Your task to perform on an android device: turn on showing notifications on the lock screen Image 0: 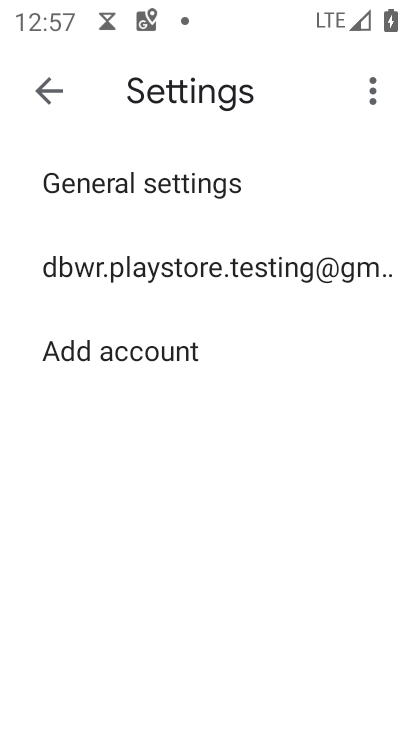
Step 0: press home button
Your task to perform on an android device: turn on showing notifications on the lock screen Image 1: 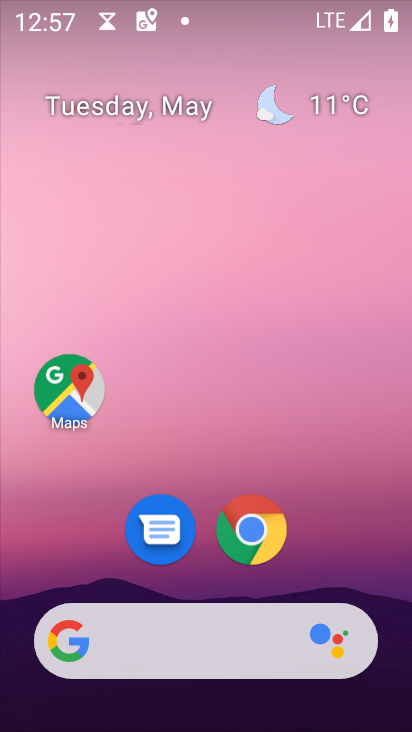
Step 1: drag from (228, 704) to (157, 140)
Your task to perform on an android device: turn on showing notifications on the lock screen Image 2: 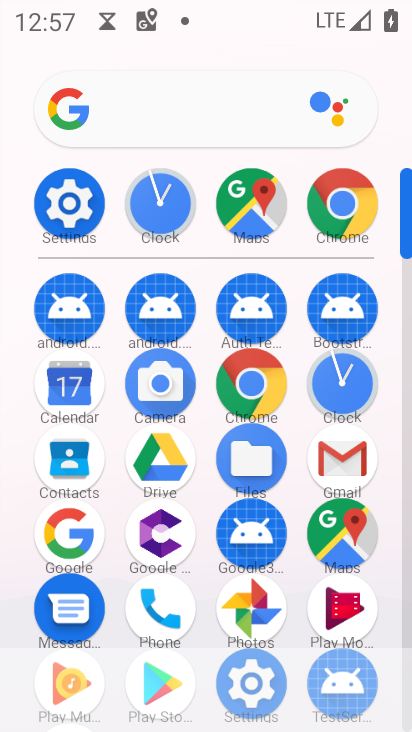
Step 2: click (65, 195)
Your task to perform on an android device: turn on showing notifications on the lock screen Image 3: 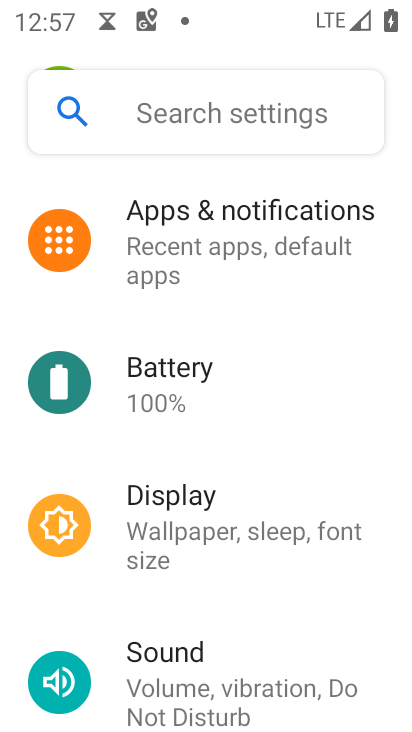
Step 3: click (235, 232)
Your task to perform on an android device: turn on showing notifications on the lock screen Image 4: 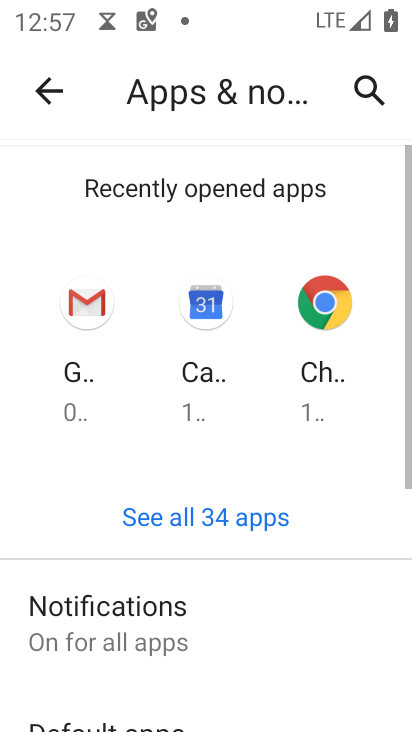
Step 4: drag from (184, 646) to (189, 272)
Your task to perform on an android device: turn on showing notifications on the lock screen Image 5: 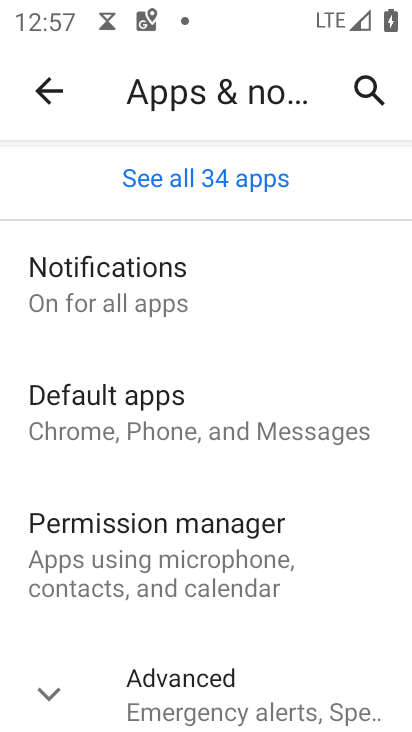
Step 5: click (83, 288)
Your task to perform on an android device: turn on showing notifications on the lock screen Image 6: 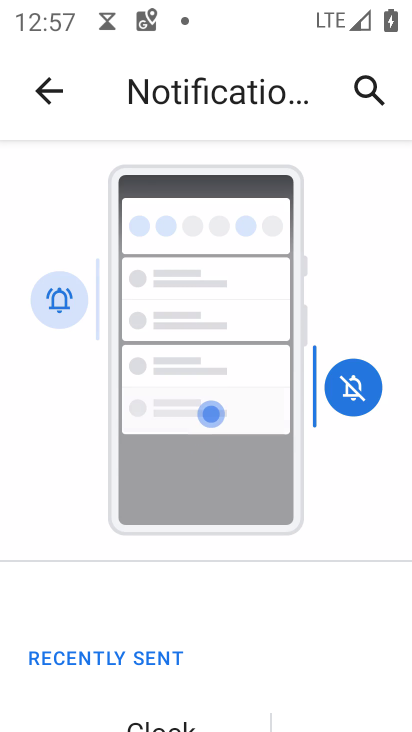
Step 6: drag from (212, 706) to (214, 299)
Your task to perform on an android device: turn on showing notifications on the lock screen Image 7: 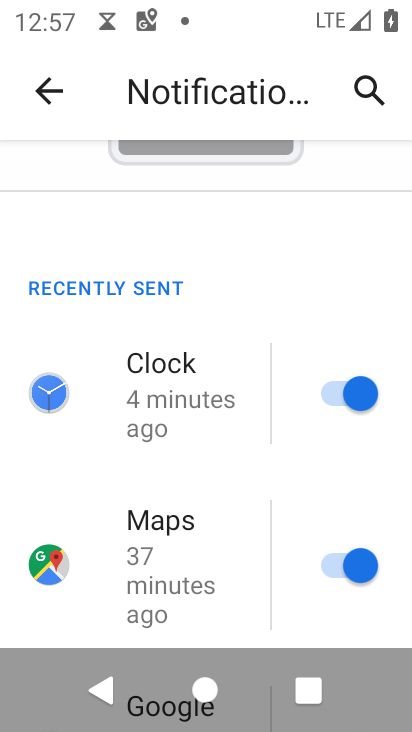
Step 7: drag from (202, 591) to (202, 211)
Your task to perform on an android device: turn on showing notifications on the lock screen Image 8: 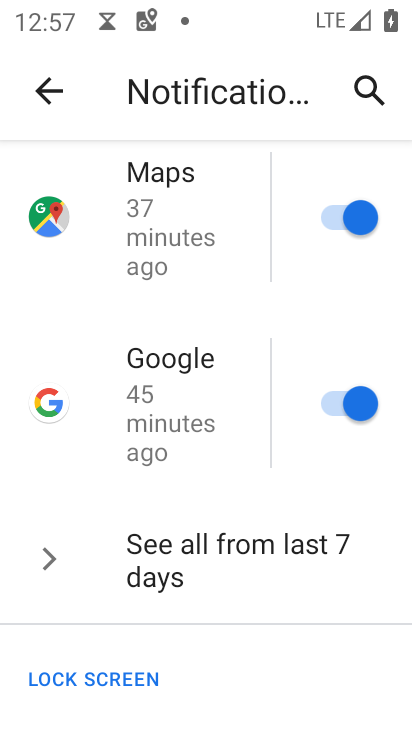
Step 8: drag from (234, 680) to (208, 327)
Your task to perform on an android device: turn on showing notifications on the lock screen Image 9: 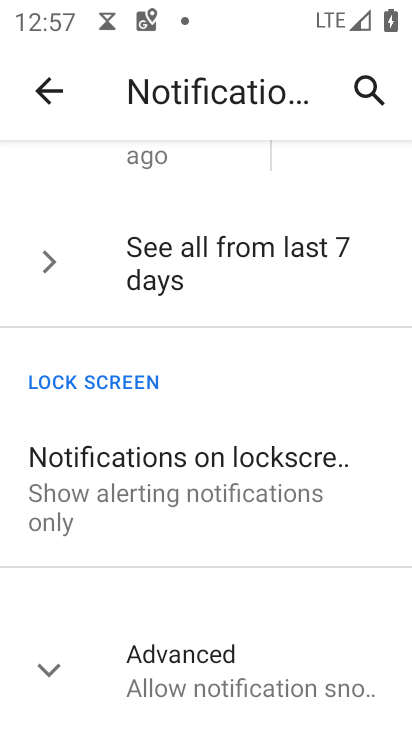
Step 9: drag from (177, 655) to (185, 326)
Your task to perform on an android device: turn on showing notifications on the lock screen Image 10: 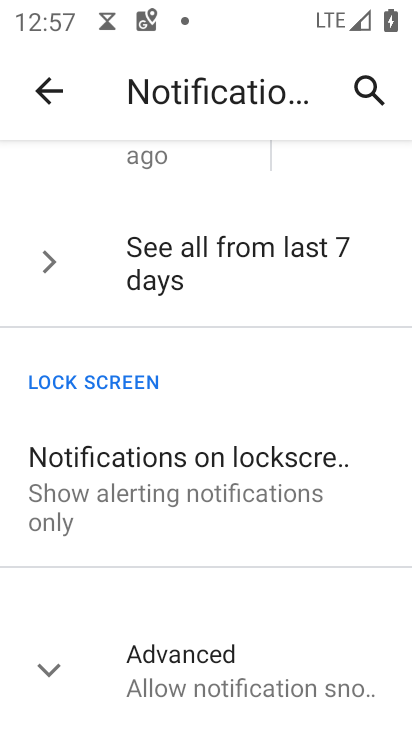
Step 10: click (233, 471)
Your task to perform on an android device: turn on showing notifications on the lock screen Image 11: 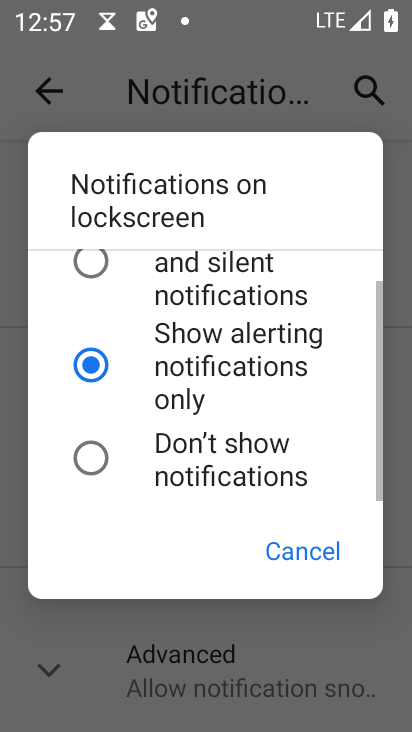
Step 11: click (90, 256)
Your task to perform on an android device: turn on showing notifications on the lock screen Image 12: 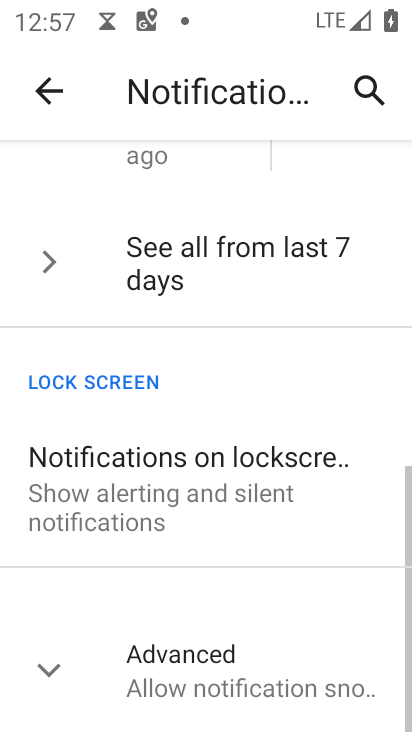
Step 12: task complete